Your task to perform on an android device: Open the phone app and click the voicemail tab. Image 0: 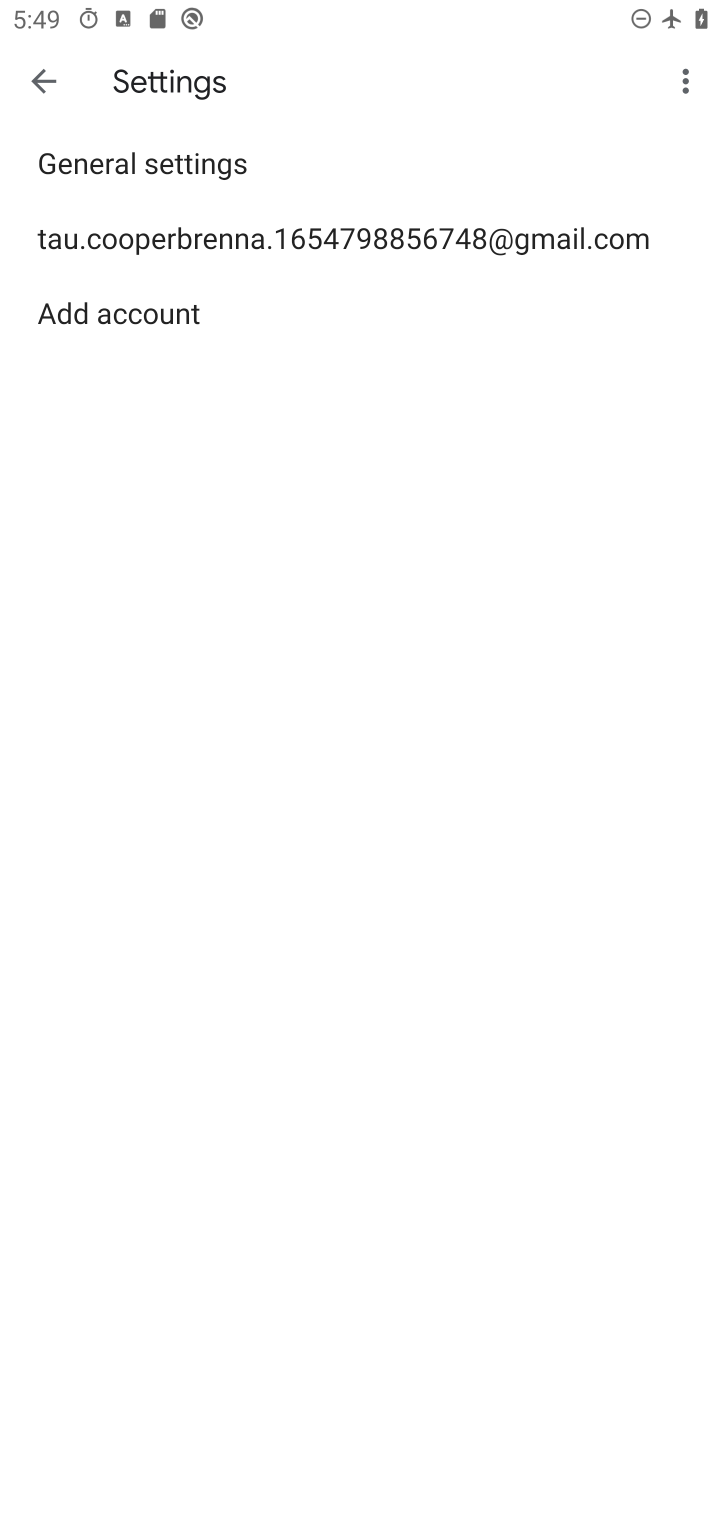
Step 0: press home button
Your task to perform on an android device: Open the phone app and click the voicemail tab. Image 1: 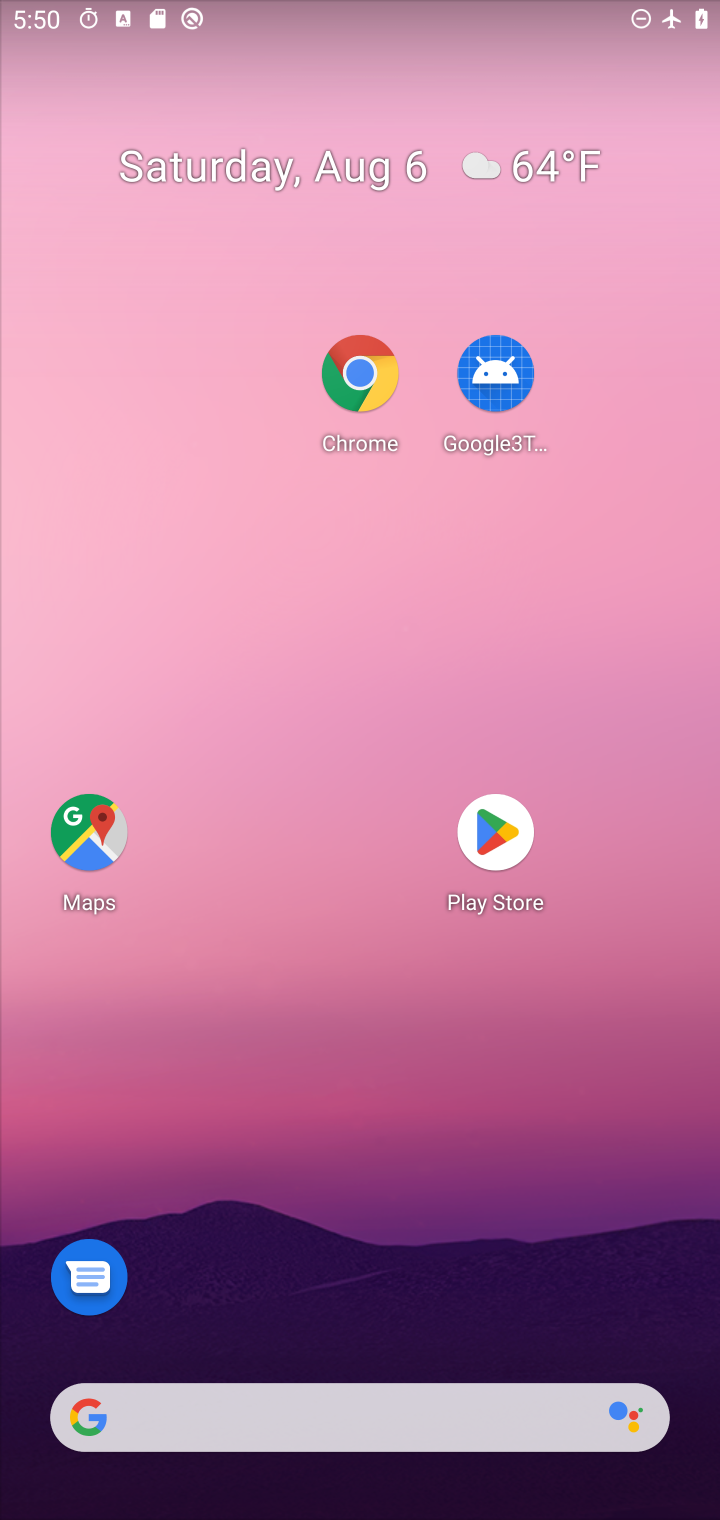
Step 1: drag from (392, 1034) to (398, 681)
Your task to perform on an android device: Open the phone app and click the voicemail tab. Image 2: 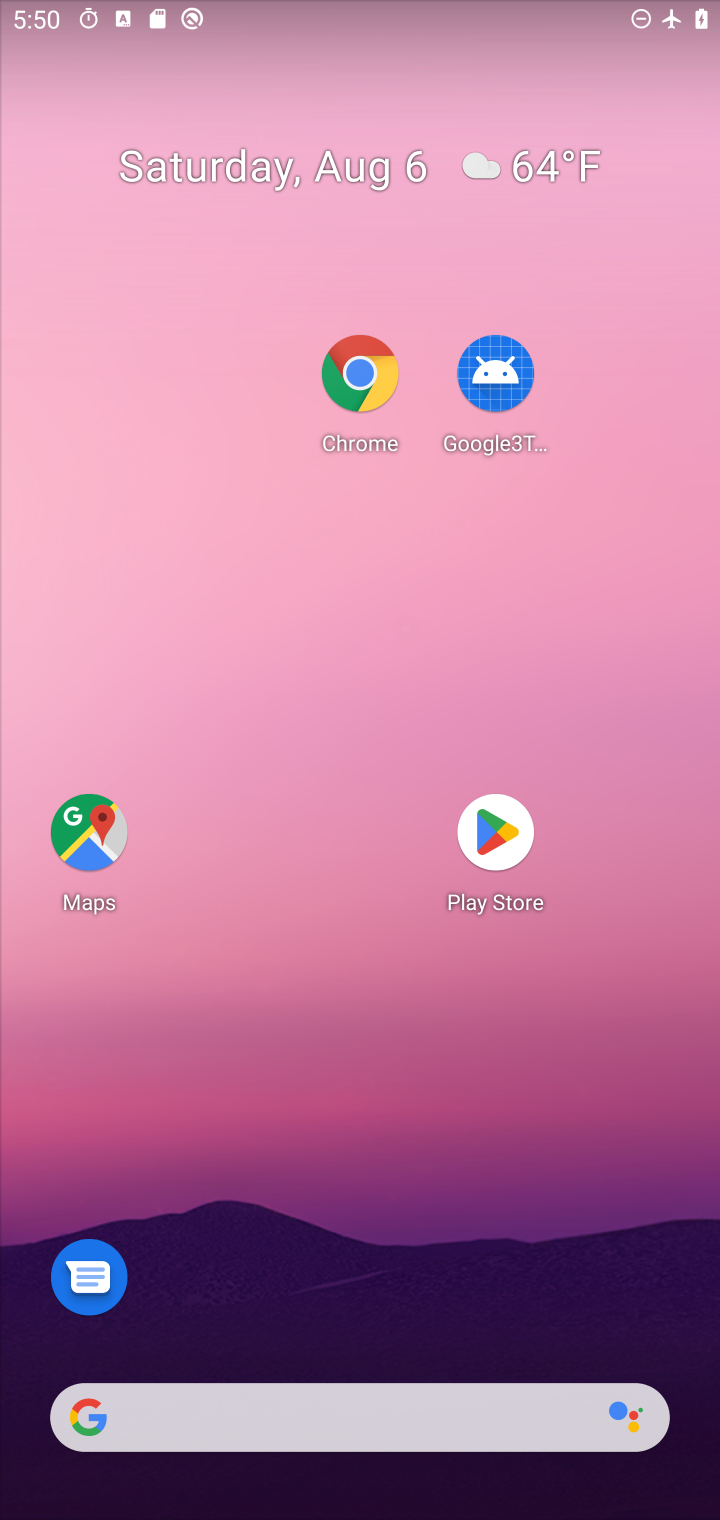
Step 2: drag from (358, 1414) to (477, 294)
Your task to perform on an android device: Open the phone app and click the voicemail tab. Image 3: 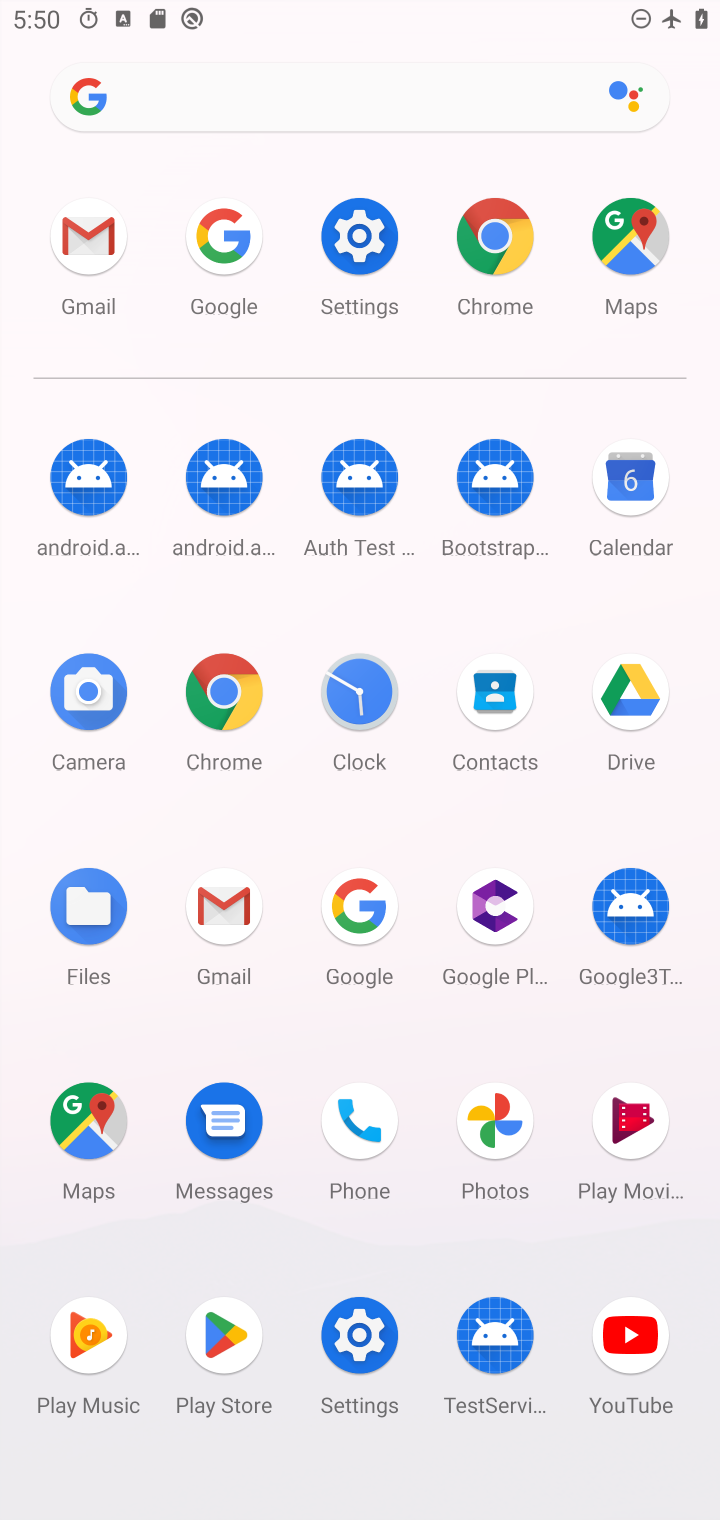
Step 3: click (345, 1110)
Your task to perform on an android device: Open the phone app and click the voicemail tab. Image 4: 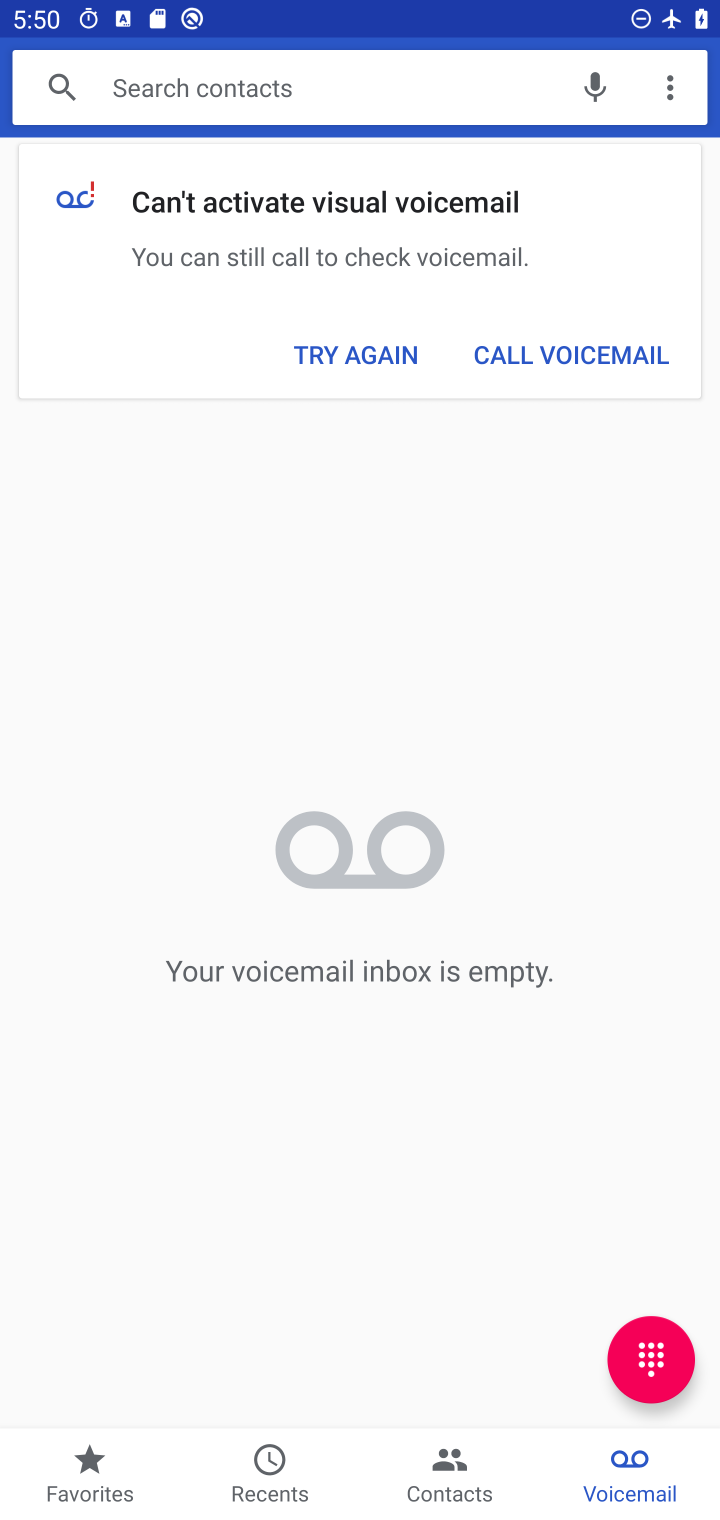
Step 4: click (633, 1457)
Your task to perform on an android device: Open the phone app and click the voicemail tab. Image 5: 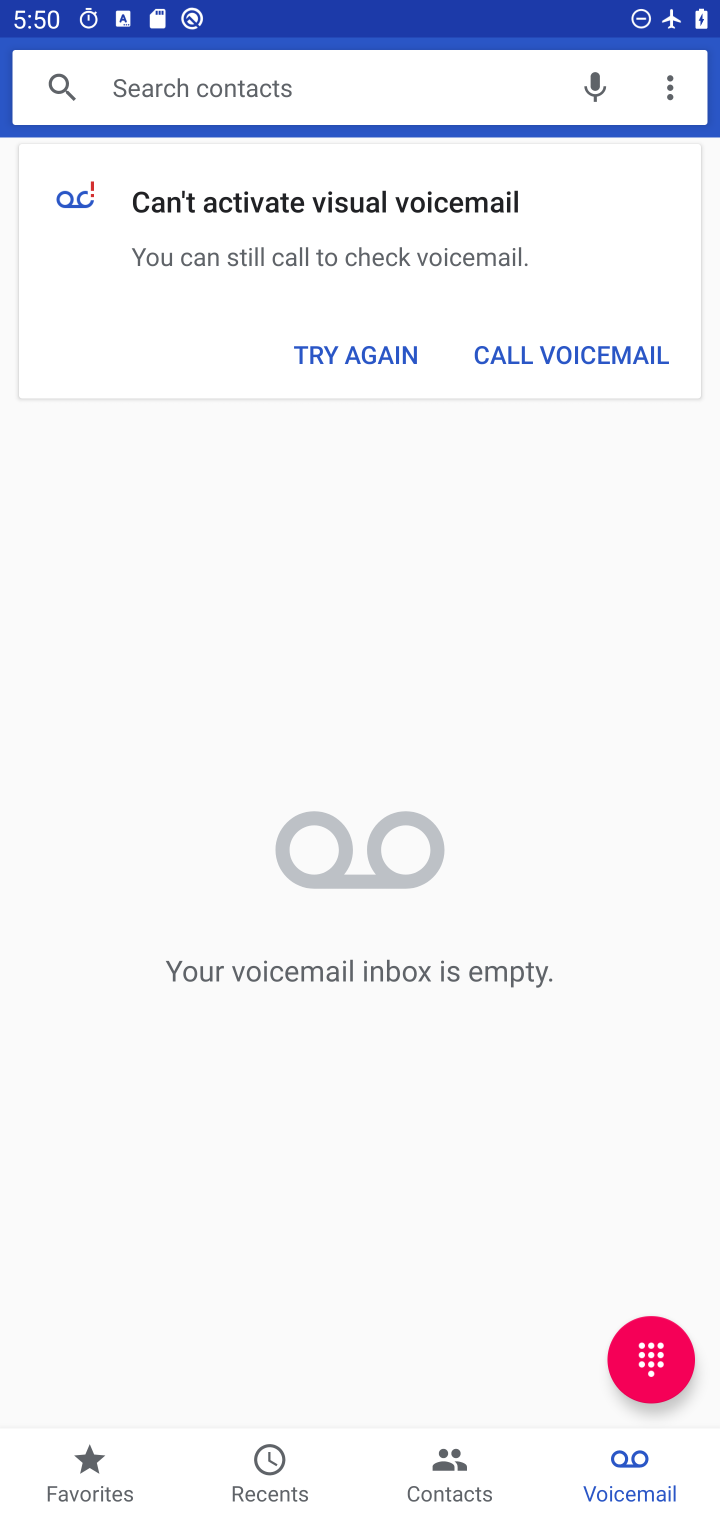
Step 5: task complete